Your task to perform on an android device: Show me popular videos on Youtube Image 0: 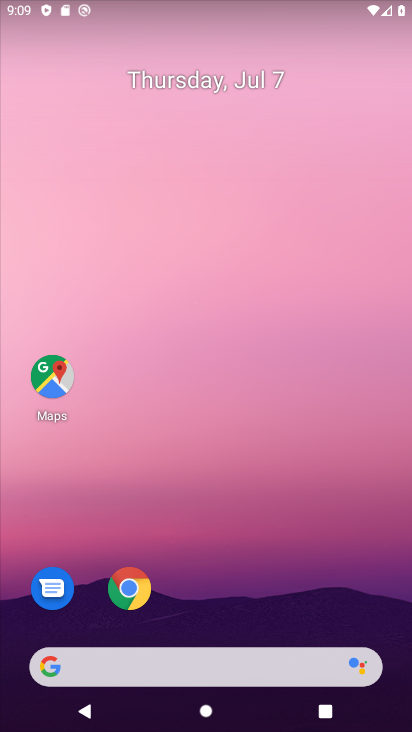
Step 0: drag from (228, 616) to (166, 226)
Your task to perform on an android device: Show me popular videos on Youtube Image 1: 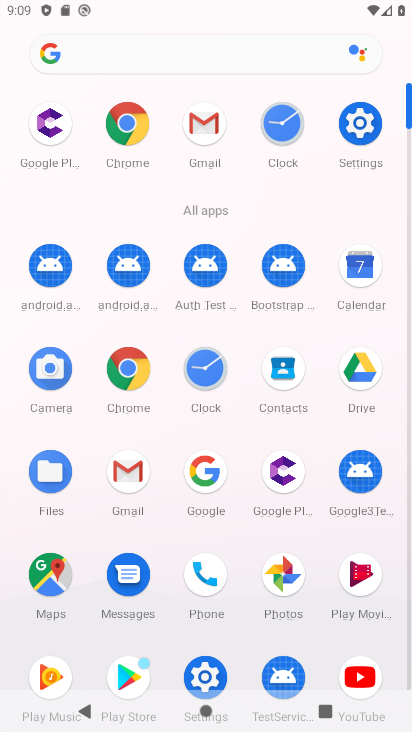
Step 1: click (351, 672)
Your task to perform on an android device: Show me popular videos on Youtube Image 2: 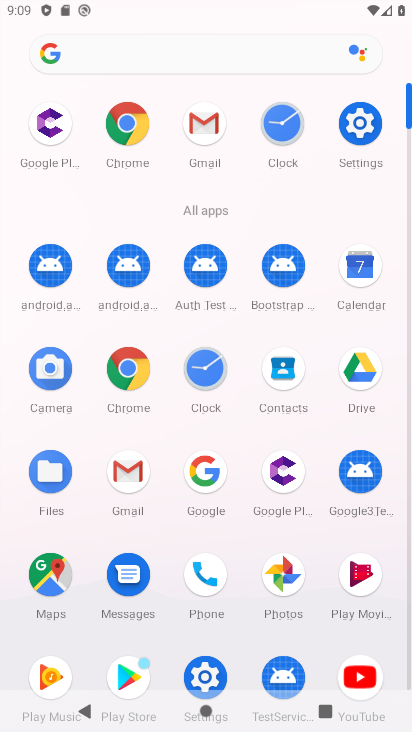
Step 2: click (354, 669)
Your task to perform on an android device: Show me popular videos on Youtube Image 3: 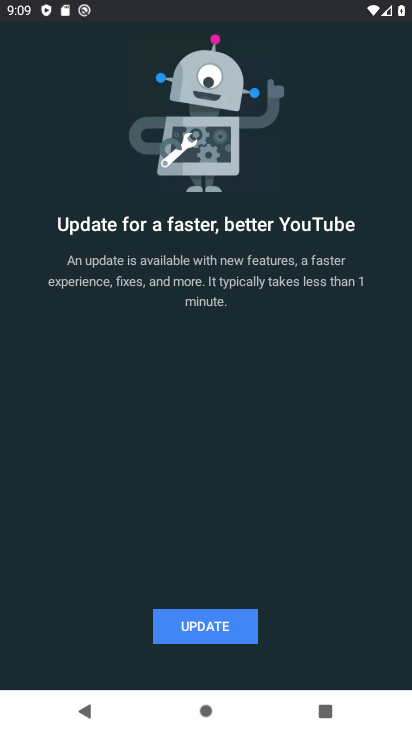
Step 3: click (211, 627)
Your task to perform on an android device: Show me popular videos on Youtube Image 4: 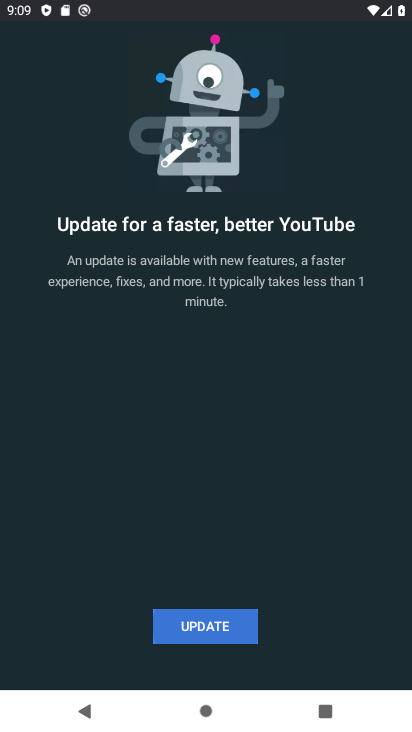
Step 4: click (211, 626)
Your task to perform on an android device: Show me popular videos on Youtube Image 5: 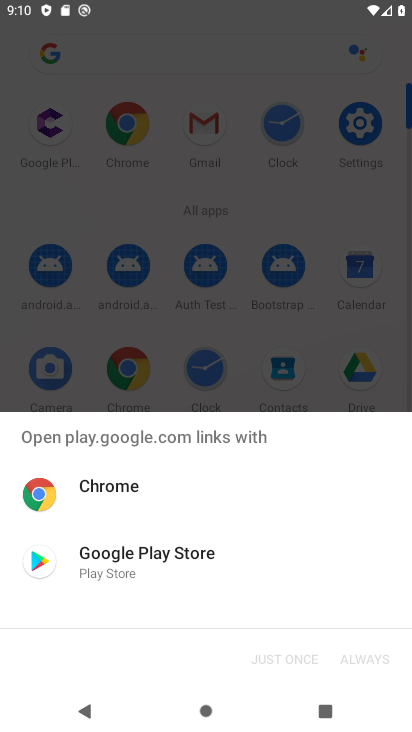
Step 5: click (235, 208)
Your task to perform on an android device: Show me popular videos on Youtube Image 6: 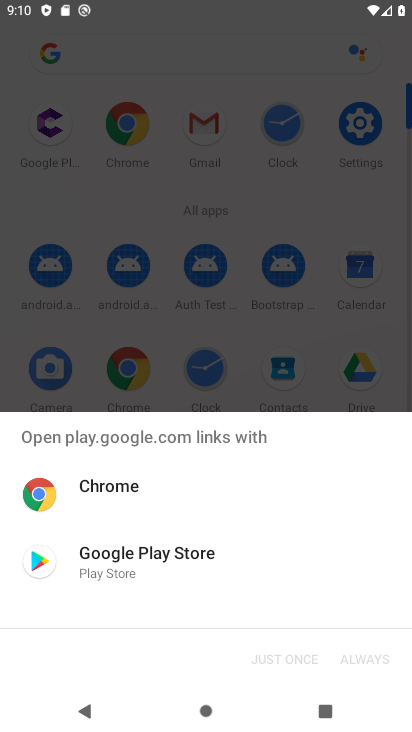
Step 6: click (240, 198)
Your task to perform on an android device: Show me popular videos on Youtube Image 7: 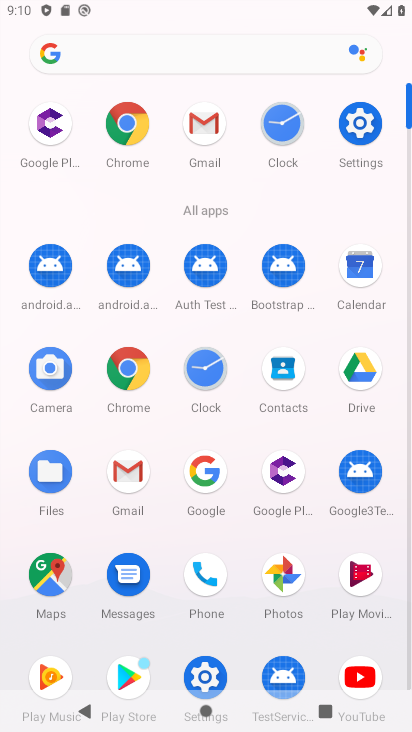
Step 7: click (120, 558)
Your task to perform on an android device: Show me popular videos on Youtube Image 8: 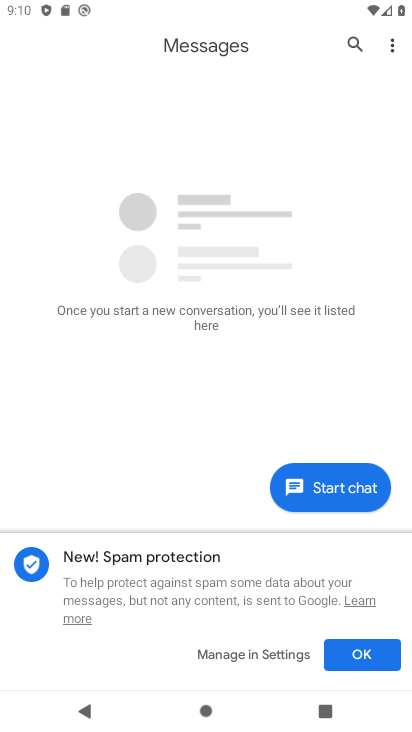
Step 8: click (379, 652)
Your task to perform on an android device: Show me popular videos on Youtube Image 9: 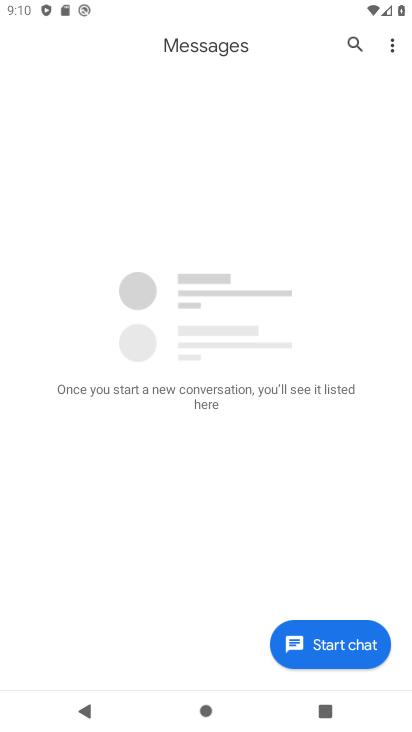
Step 9: click (349, 651)
Your task to perform on an android device: Show me popular videos on Youtube Image 10: 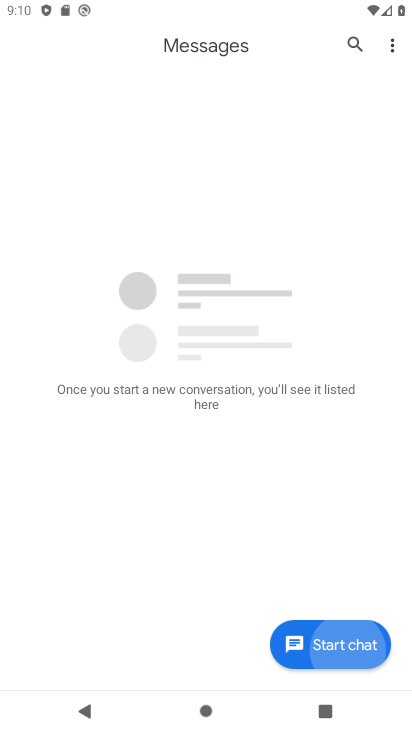
Step 10: click (344, 653)
Your task to perform on an android device: Show me popular videos on Youtube Image 11: 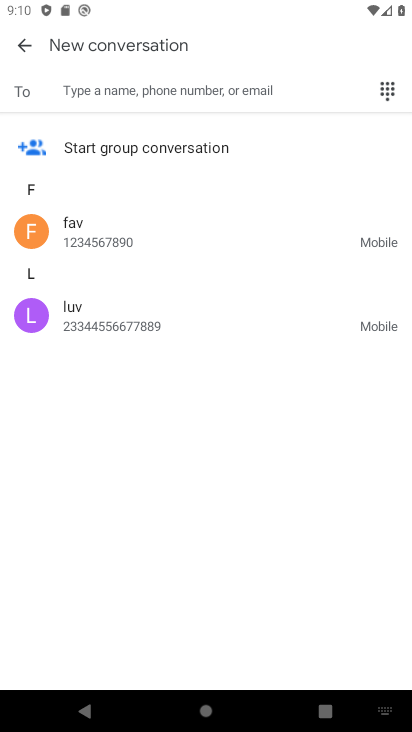
Step 11: click (30, 49)
Your task to perform on an android device: Show me popular videos on Youtube Image 12: 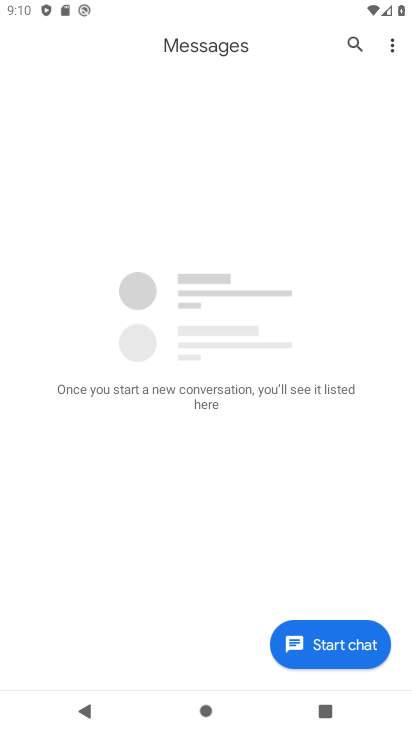
Step 12: click (323, 642)
Your task to perform on an android device: Show me popular videos on Youtube Image 13: 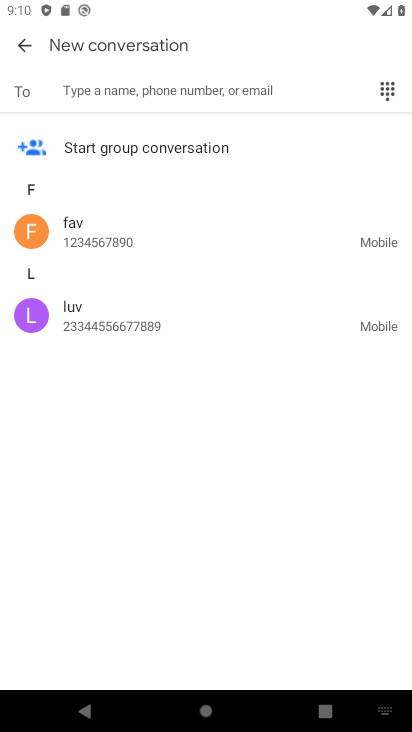
Step 13: click (18, 43)
Your task to perform on an android device: Show me popular videos on Youtube Image 14: 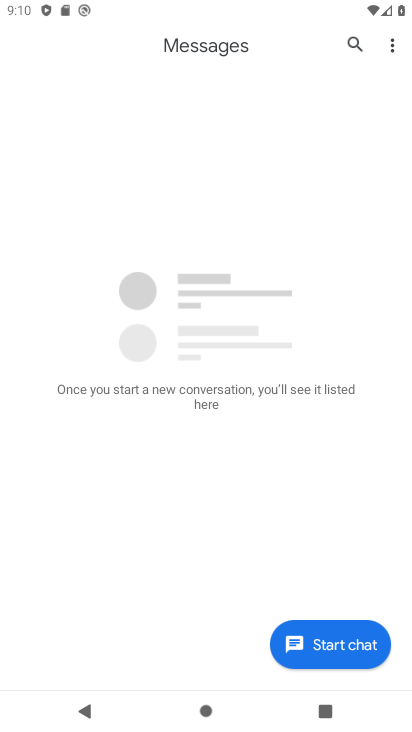
Step 14: press back button
Your task to perform on an android device: Show me popular videos on Youtube Image 15: 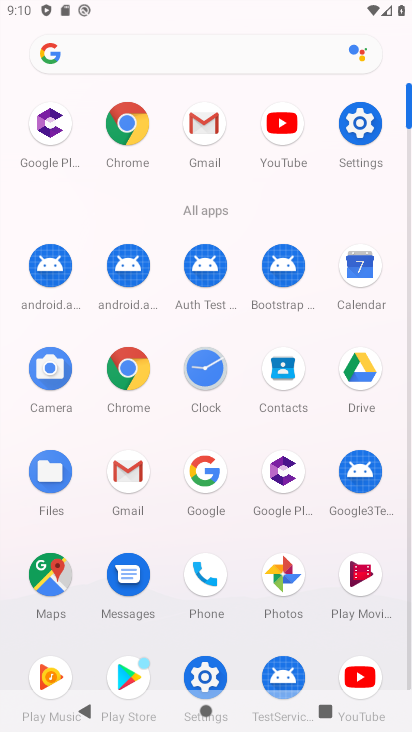
Step 15: click (361, 680)
Your task to perform on an android device: Show me popular videos on Youtube Image 16: 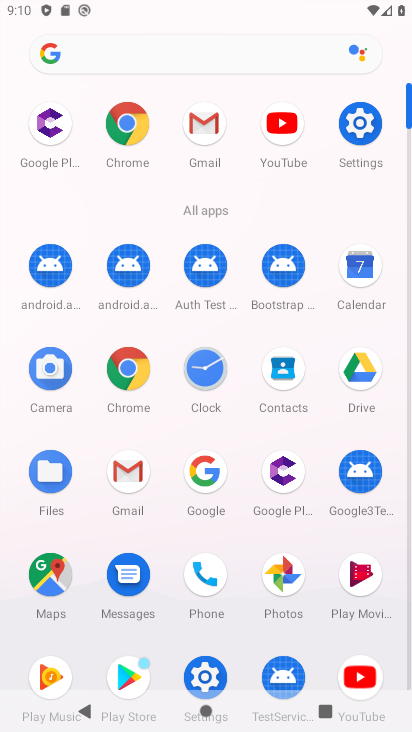
Step 16: click (361, 680)
Your task to perform on an android device: Show me popular videos on Youtube Image 17: 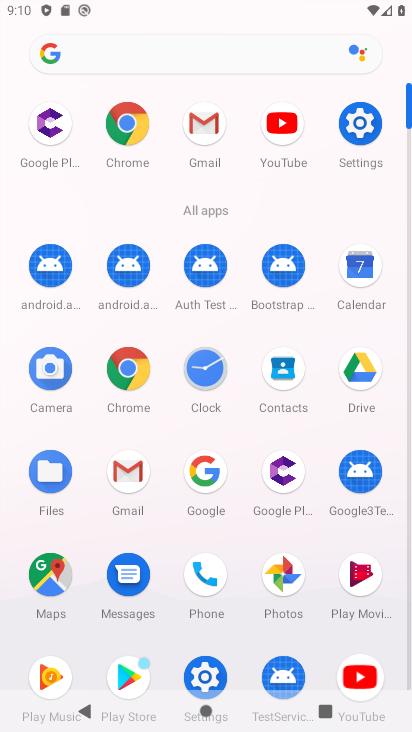
Step 17: click (361, 680)
Your task to perform on an android device: Show me popular videos on Youtube Image 18: 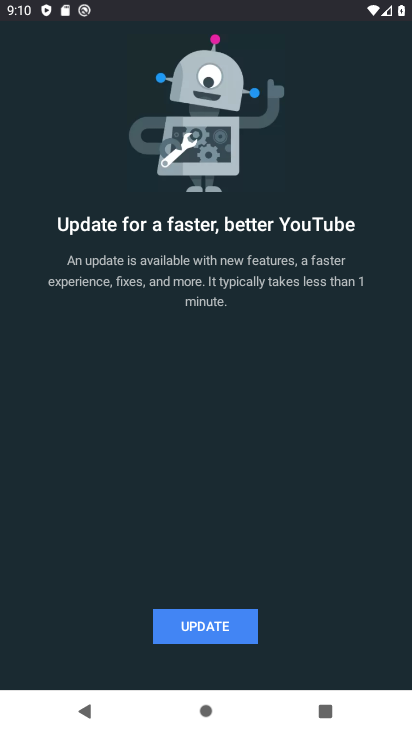
Step 18: click (214, 633)
Your task to perform on an android device: Show me popular videos on Youtube Image 19: 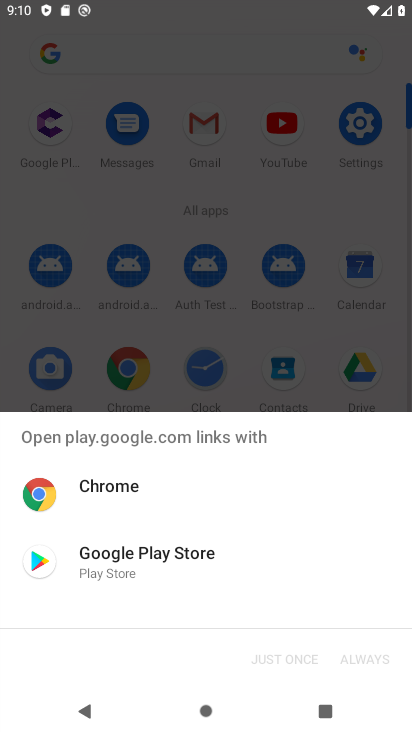
Step 19: click (113, 558)
Your task to perform on an android device: Show me popular videos on Youtube Image 20: 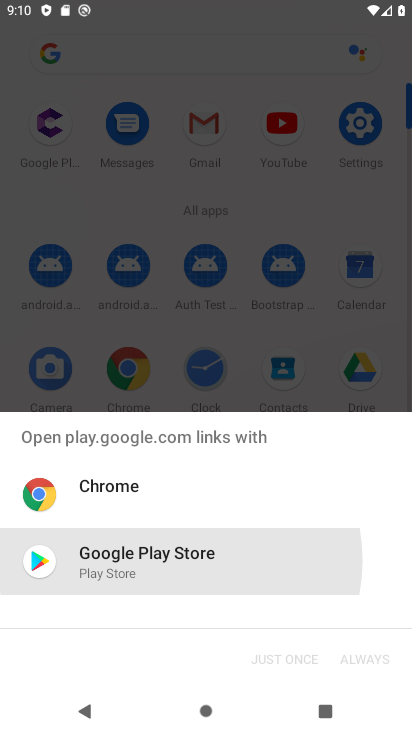
Step 20: click (113, 558)
Your task to perform on an android device: Show me popular videos on Youtube Image 21: 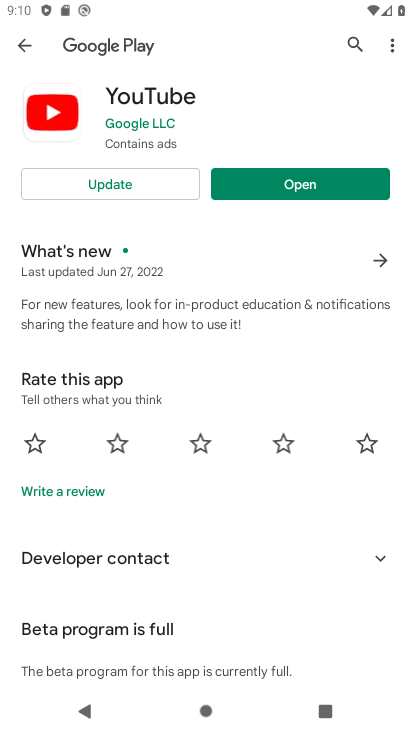
Step 21: click (263, 187)
Your task to perform on an android device: Show me popular videos on Youtube Image 22: 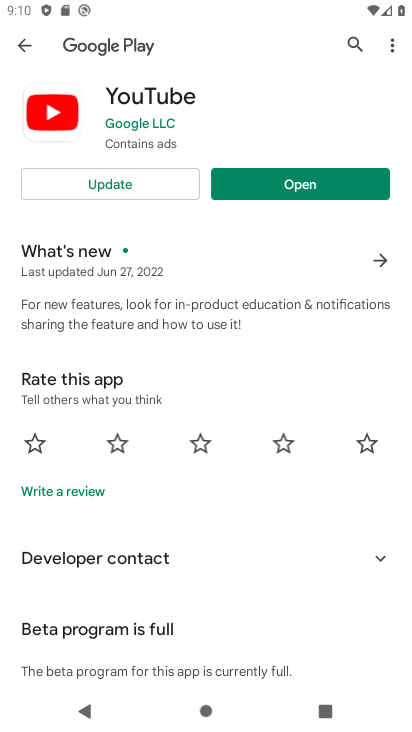
Step 22: click (271, 186)
Your task to perform on an android device: Show me popular videos on Youtube Image 23: 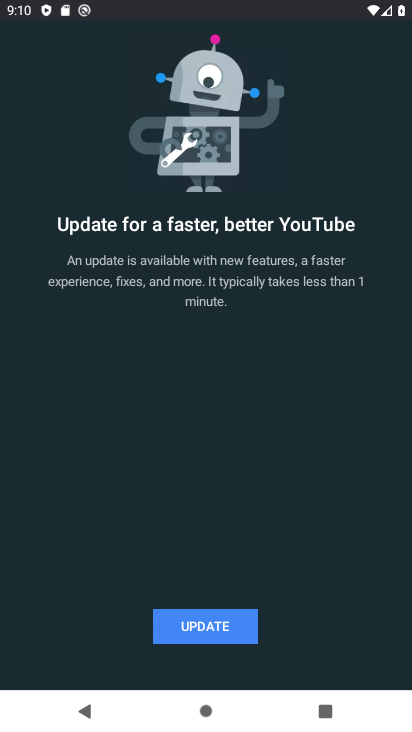
Step 23: task complete